Your task to perform on an android device: turn on notifications settings in the gmail app Image 0: 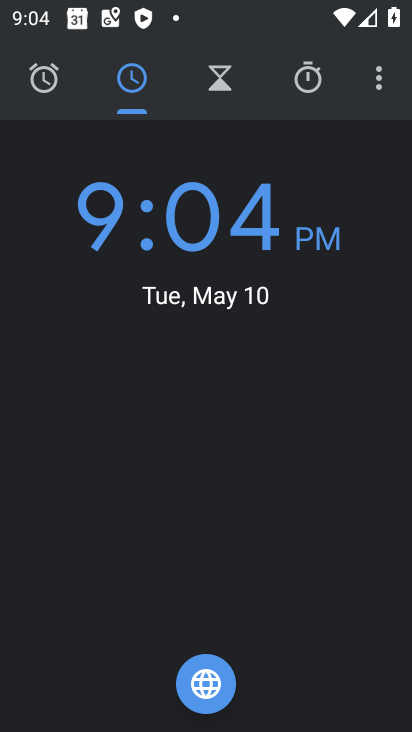
Step 0: press back button
Your task to perform on an android device: turn on notifications settings in the gmail app Image 1: 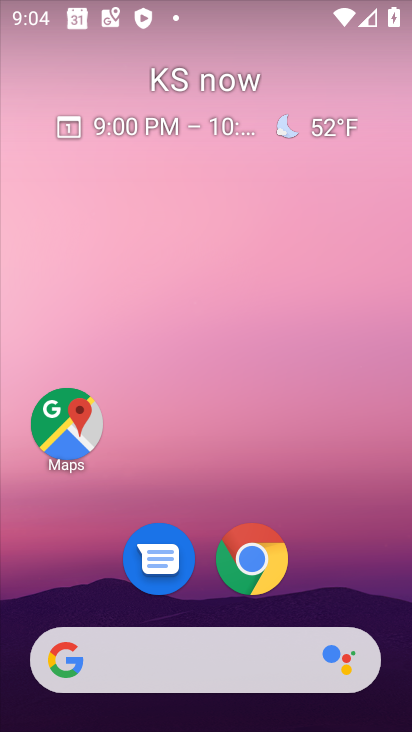
Step 1: drag from (355, 543) to (355, 14)
Your task to perform on an android device: turn on notifications settings in the gmail app Image 2: 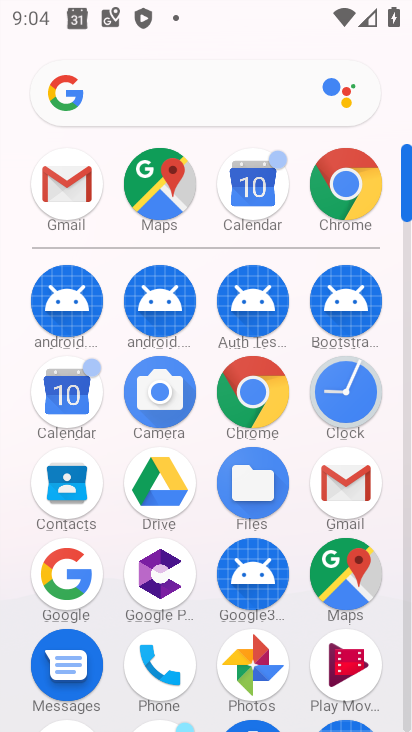
Step 2: click (341, 474)
Your task to perform on an android device: turn on notifications settings in the gmail app Image 3: 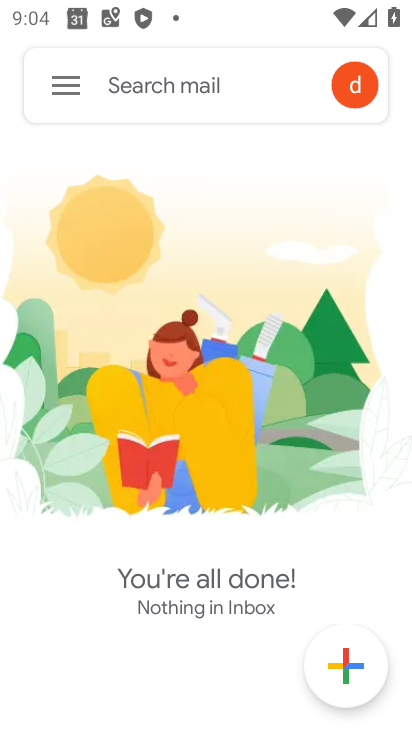
Step 3: click (60, 78)
Your task to perform on an android device: turn on notifications settings in the gmail app Image 4: 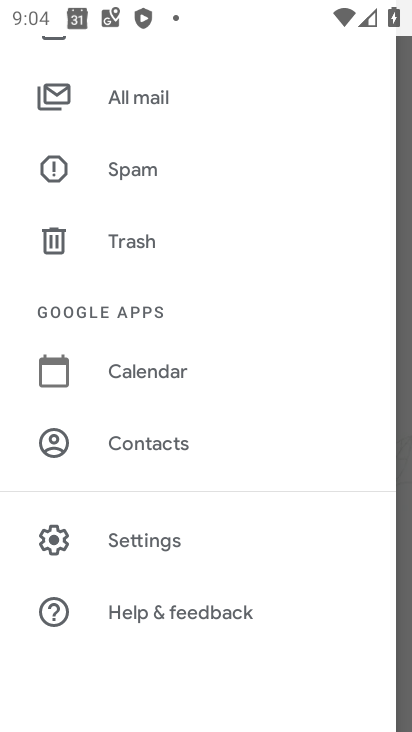
Step 4: click (156, 535)
Your task to perform on an android device: turn on notifications settings in the gmail app Image 5: 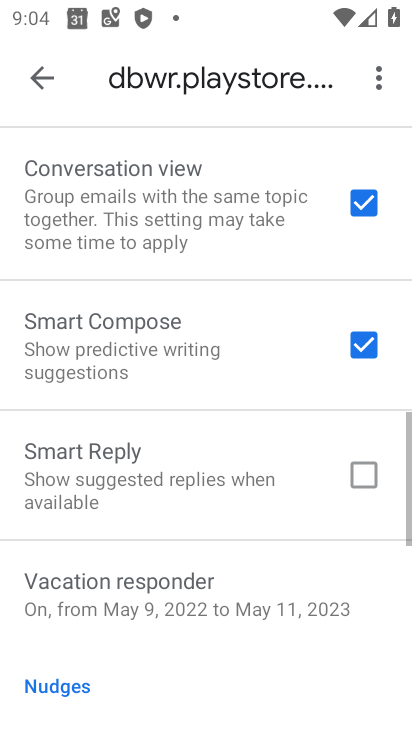
Step 5: drag from (208, 587) to (203, 140)
Your task to perform on an android device: turn on notifications settings in the gmail app Image 6: 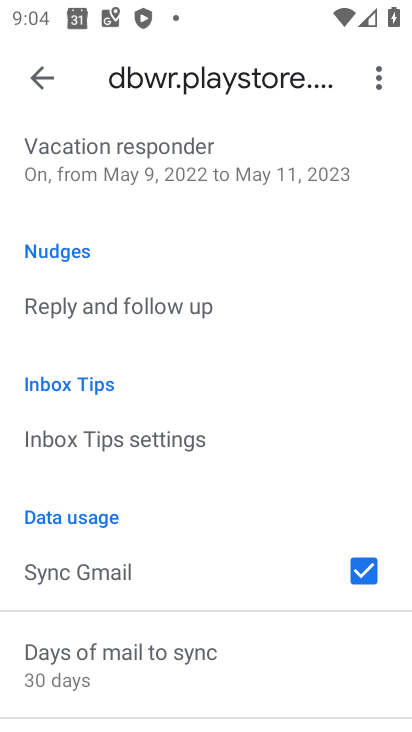
Step 6: drag from (195, 229) to (179, 631)
Your task to perform on an android device: turn on notifications settings in the gmail app Image 7: 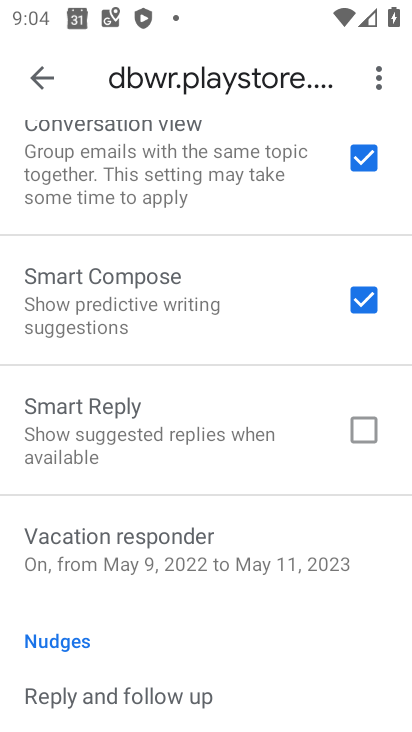
Step 7: drag from (160, 259) to (145, 603)
Your task to perform on an android device: turn on notifications settings in the gmail app Image 8: 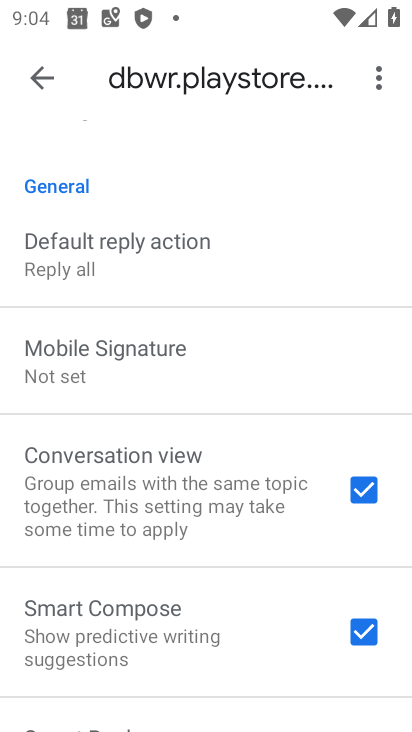
Step 8: drag from (180, 279) to (144, 635)
Your task to perform on an android device: turn on notifications settings in the gmail app Image 9: 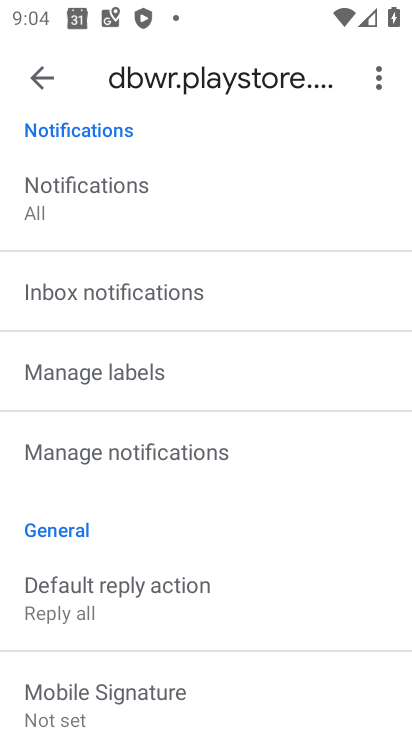
Step 9: click (139, 448)
Your task to perform on an android device: turn on notifications settings in the gmail app Image 10: 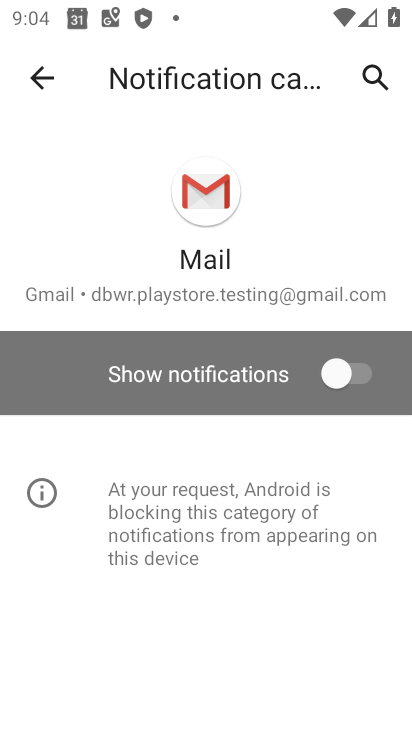
Step 10: click (349, 366)
Your task to perform on an android device: turn on notifications settings in the gmail app Image 11: 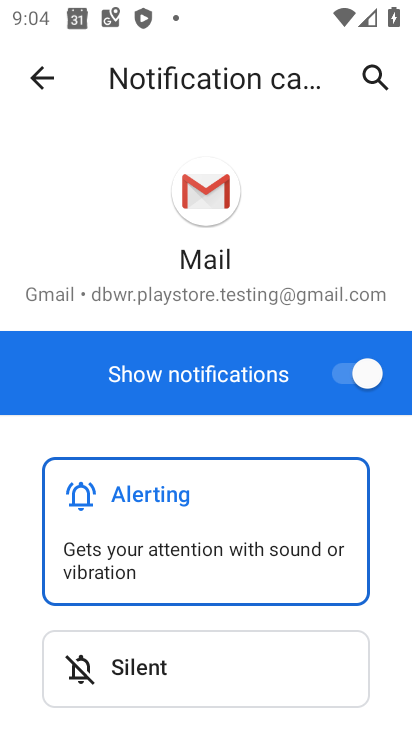
Step 11: task complete